Your task to perform on an android device: Open the map Image 0: 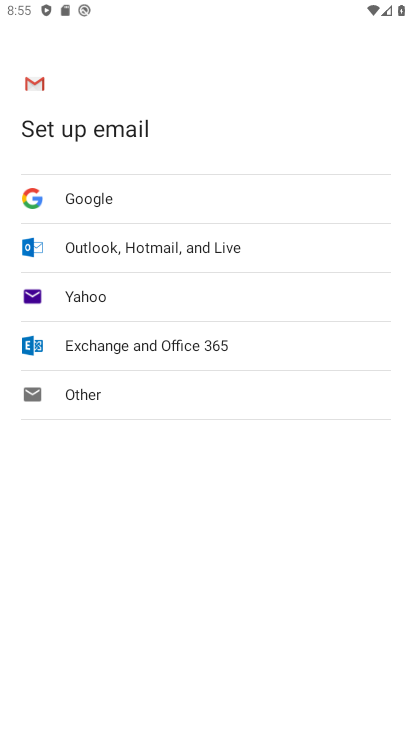
Step 0: press back button
Your task to perform on an android device: Open the map Image 1: 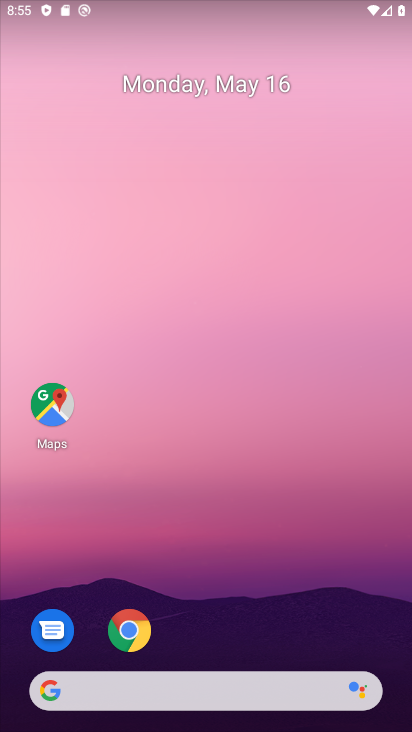
Step 1: drag from (246, 618) to (93, 7)
Your task to perform on an android device: Open the map Image 2: 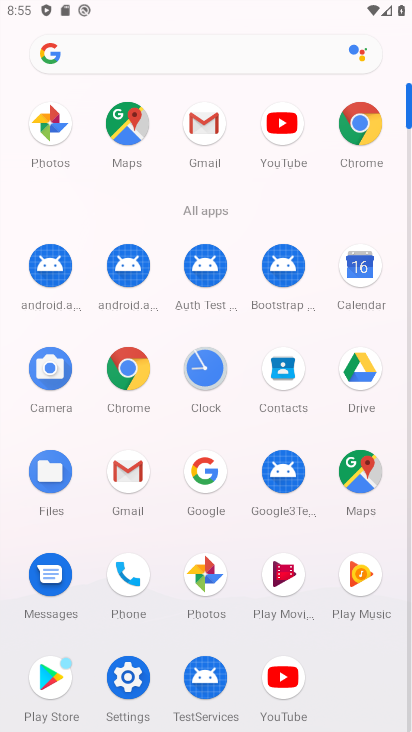
Step 2: click (122, 133)
Your task to perform on an android device: Open the map Image 3: 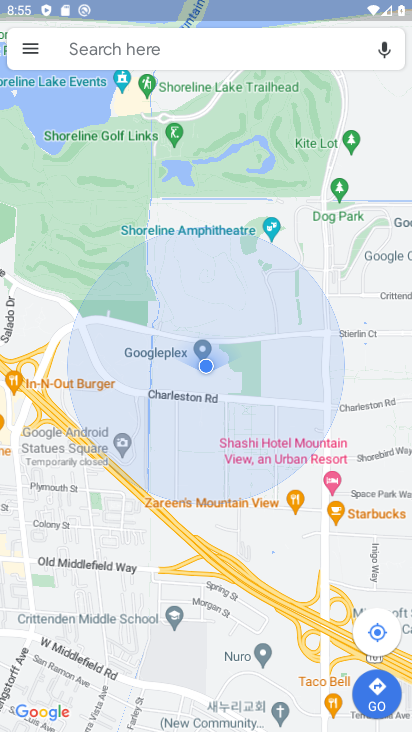
Step 3: task complete